Your task to perform on an android device: Search for the best rated wireless headphones on Amazon. Image 0: 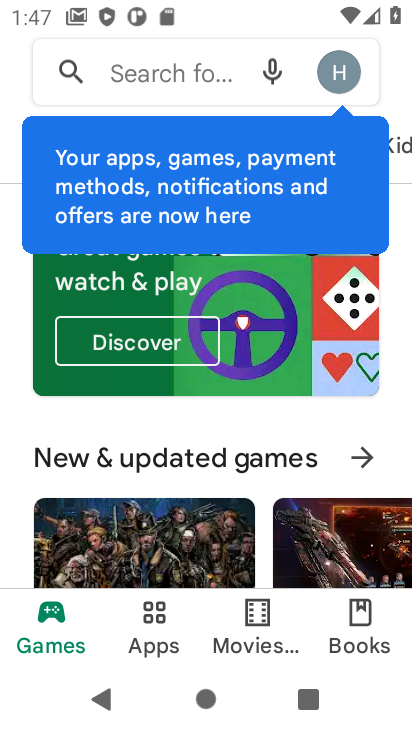
Step 0: press home button
Your task to perform on an android device: Search for the best rated wireless headphones on Amazon. Image 1: 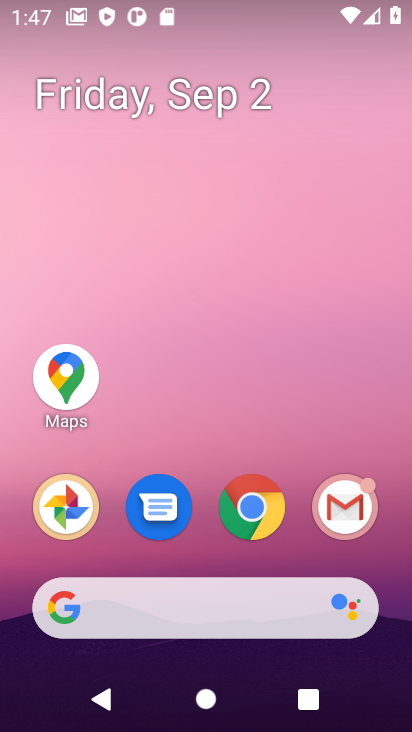
Step 1: click (233, 517)
Your task to perform on an android device: Search for the best rated wireless headphones on Amazon. Image 2: 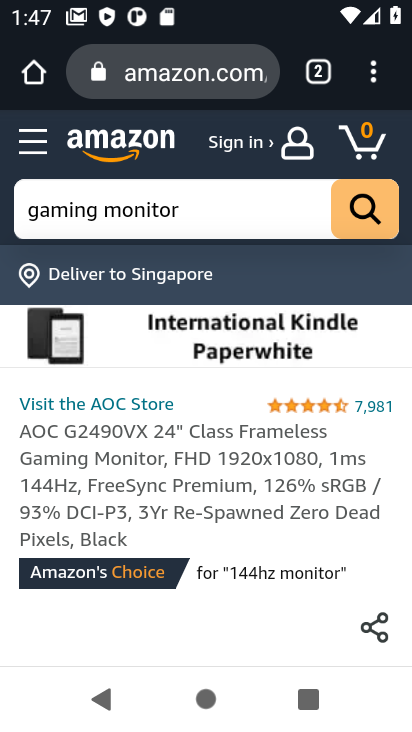
Step 2: click (116, 80)
Your task to perform on an android device: Search for the best rated wireless headphones on Amazon. Image 3: 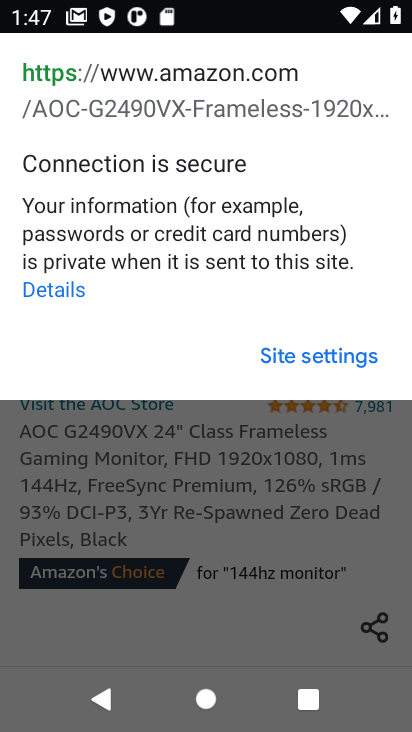
Step 3: click (200, 421)
Your task to perform on an android device: Search for the best rated wireless headphones on Amazon. Image 4: 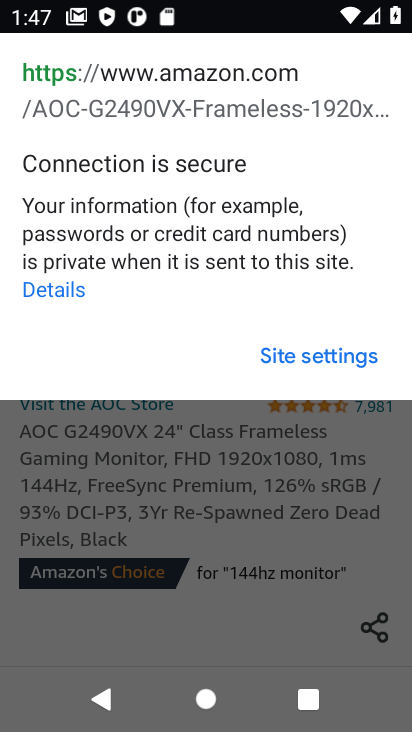
Step 4: click (197, 518)
Your task to perform on an android device: Search for the best rated wireless headphones on Amazon. Image 5: 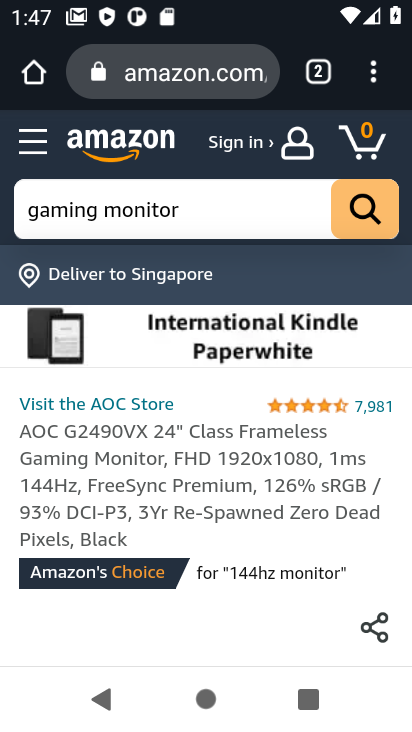
Step 5: click (247, 207)
Your task to perform on an android device: Search for the best rated wireless headphones on Amazon. Image 6: 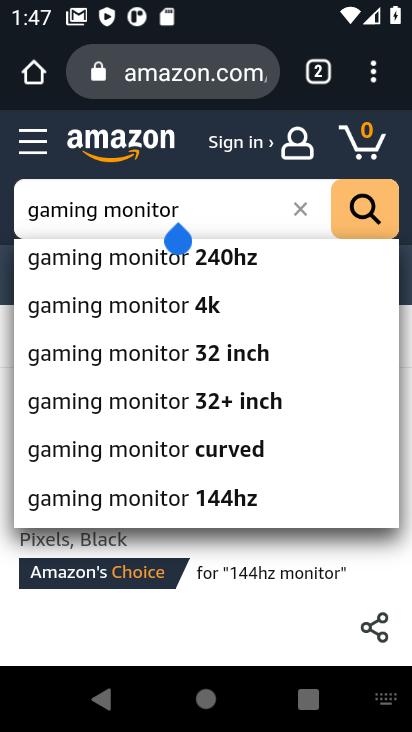
Step 6: click (292, 213)
Your task to perform on an android device: Search for the best rated wireless headphones on Amazon. Image 7: 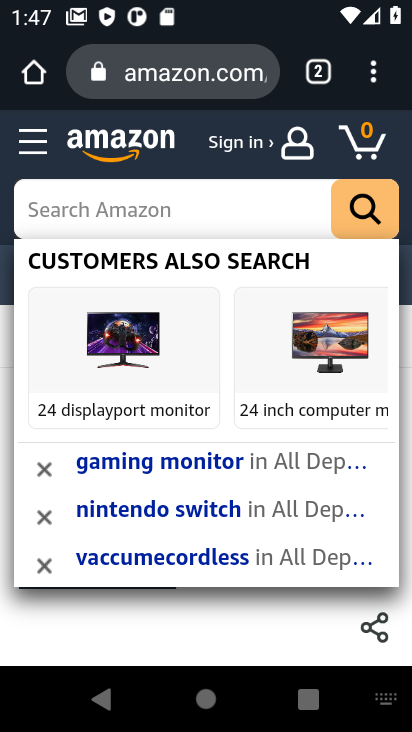
Step 7: type "wireless headphone"
Your task to perform on an android device: Search for the best rated wireless headphones on Amazon. Image 8: 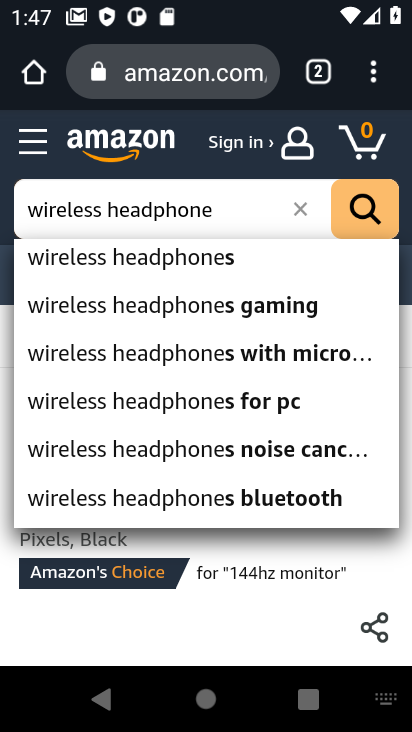
Step 8: click (254, 257)
Your task to perform on an android device: Search for the best rated wireless headphones on Amazon. Image 9: 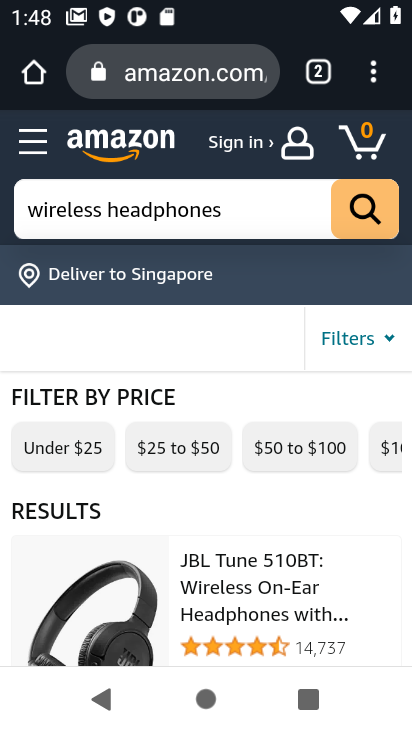
Step 9: click (237, 609)
Your task to perform on an android device: Search for the best rated wireless headphones on Amazon. Image 10: 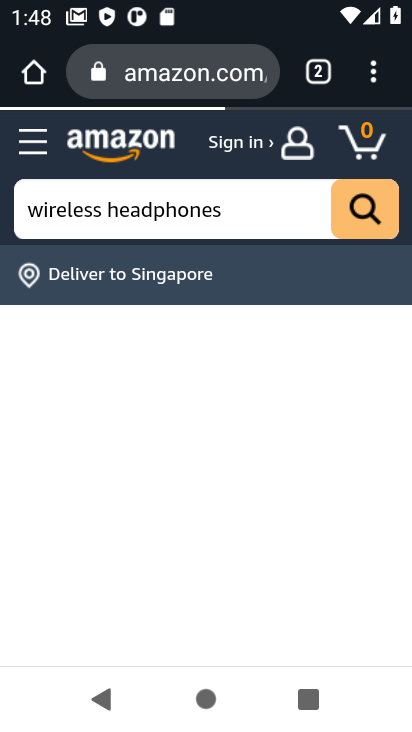
Step 10: task complete